Your task to perform on an android device: Show me recent news Image 0: 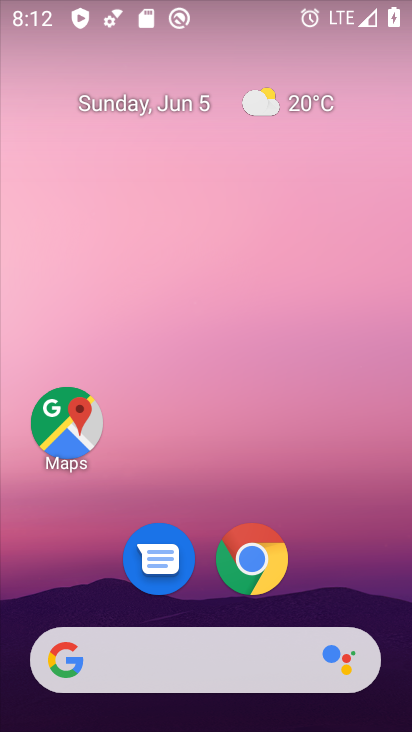
Step 0: click (323, 543)
Your task to perform on an android device: Show me recent news Image 1: 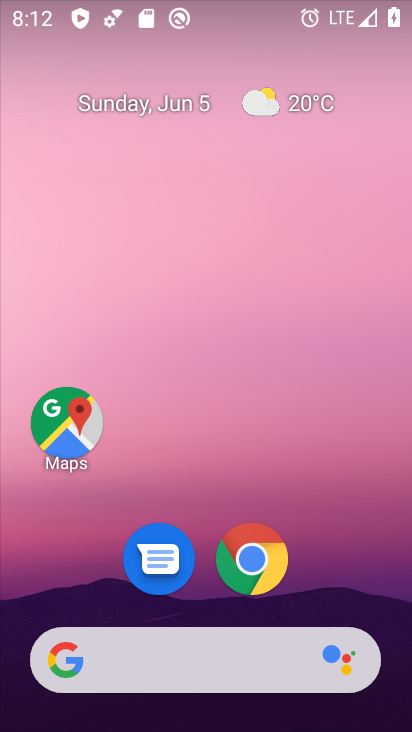
Step 1: click (253, 555)
Your task to perform on an android device: Show me recent news Image 2: 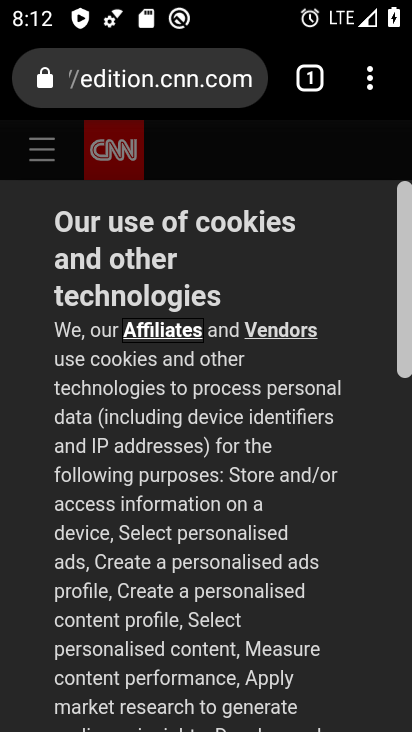
Step 2: click (196, 93)
Your task to perform on an android device: Show me recent news Image 3: 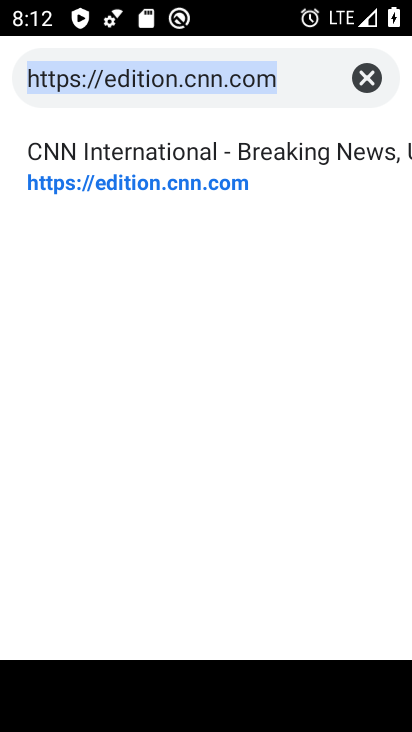
Step 3: type "news"
Your task to perform on an android device: Show me recent news Image 4: 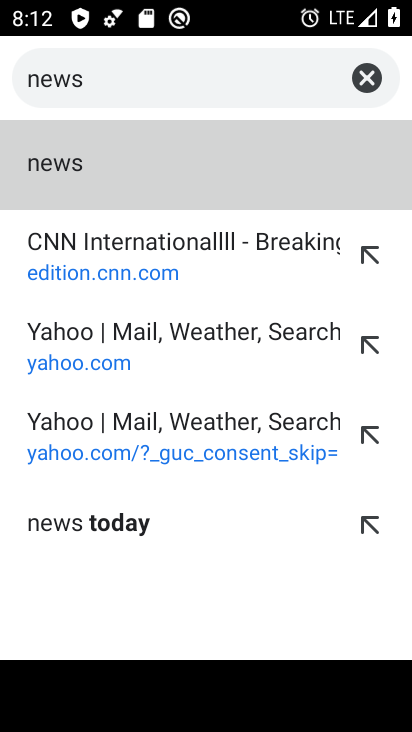
Step 4: click (58, 167)
Your task to perform on an android device: Show me recent news Image 5: 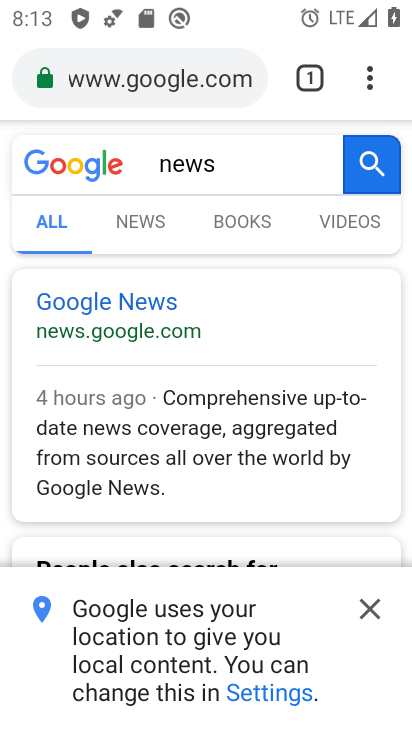
Step 5: click (151, 220)
Your task to perform on an android device: Show me recent news Image 6: 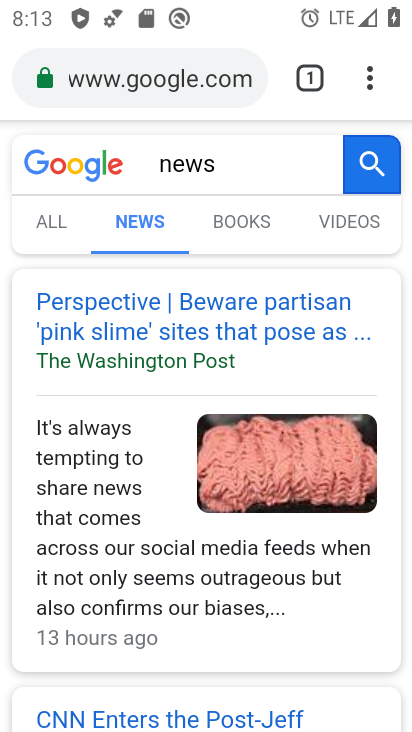
Step 6: drag from (156, 412) to (116, 280)
Your task to perform on an android device: Show me recent news Image 7: 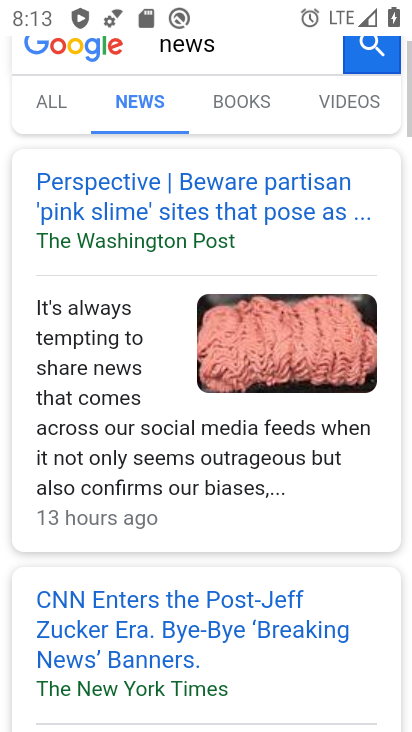
Step 7: click (183, 63)
Your task to perform on an android device: Show me recent news Image 8: 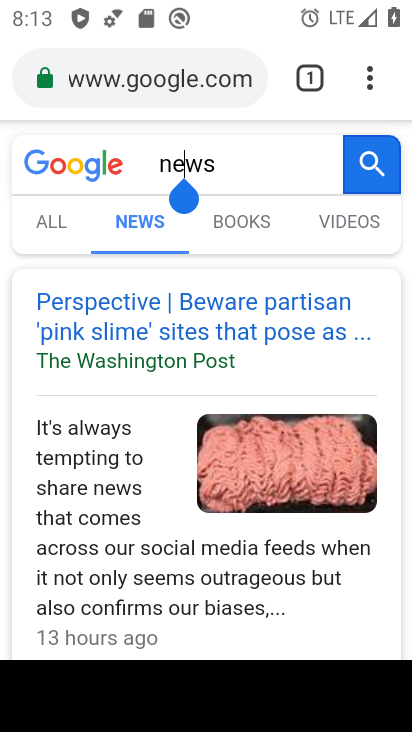
Step 8: task complete